Your task to perform on an android device: Open CNN.com Image 0: 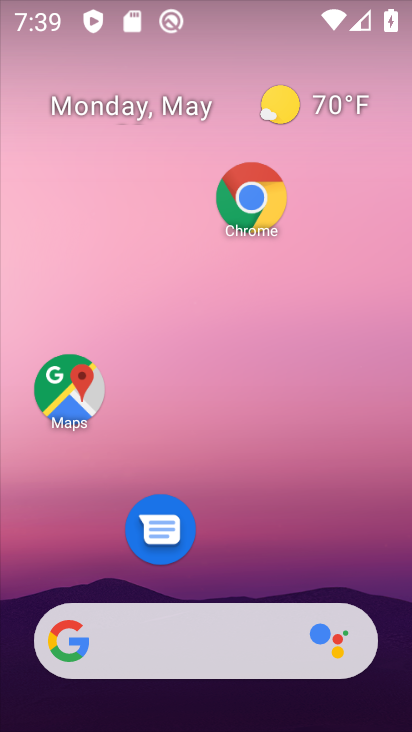
Step 0: press home button
Your task to perform on an android device: Open CNN.com Image 1: 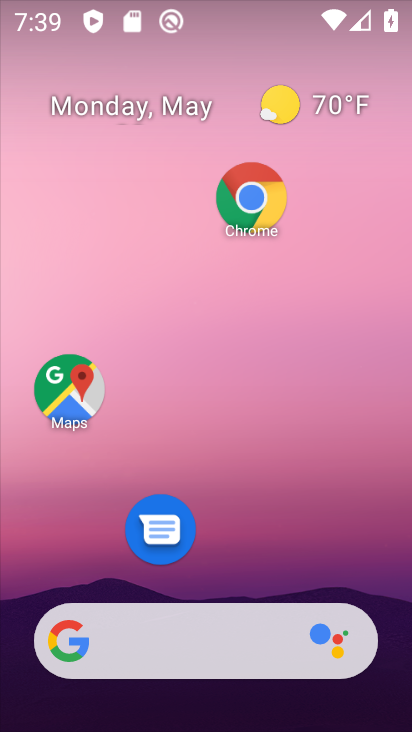
Step 1: click (250, 188)
Your task to perform on an android device: Open CNN.com Image 2: 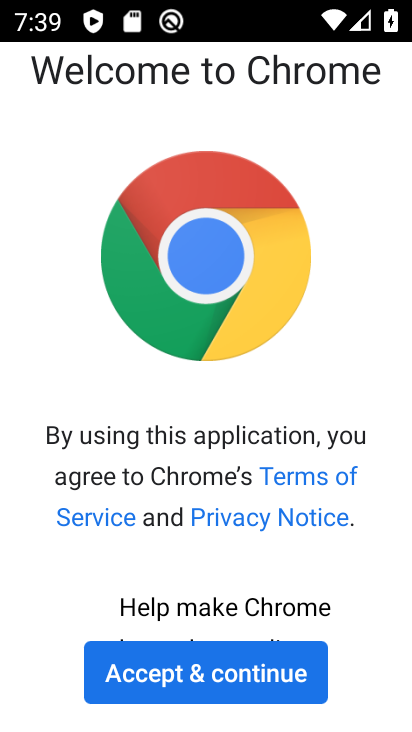
Step 2: click (194, 670)
Your task to perform on an android device: Open CNN.com Image 3: 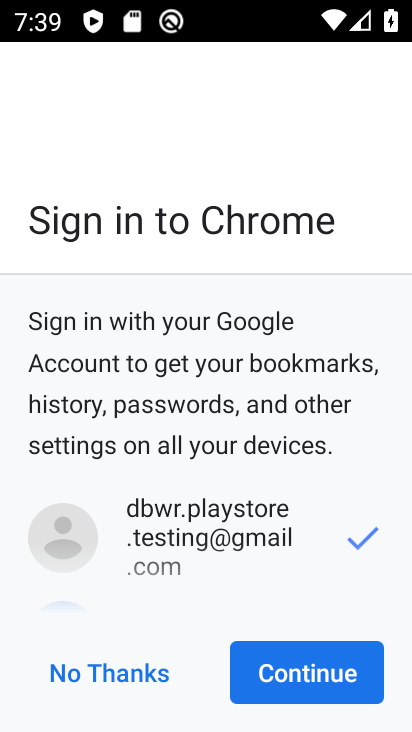
Step 3: click (194, 670)
Your task to perform on an android device: Open CNN.com Image 4: 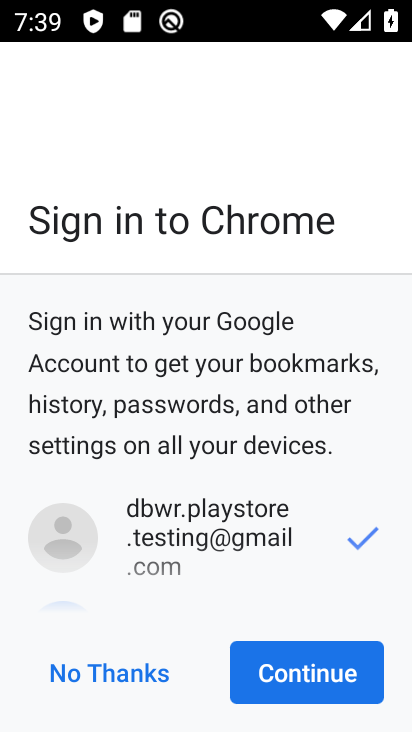
Step 4: click (302, 673)
Your task to perform on an android device: Open CNN.com Image 5: 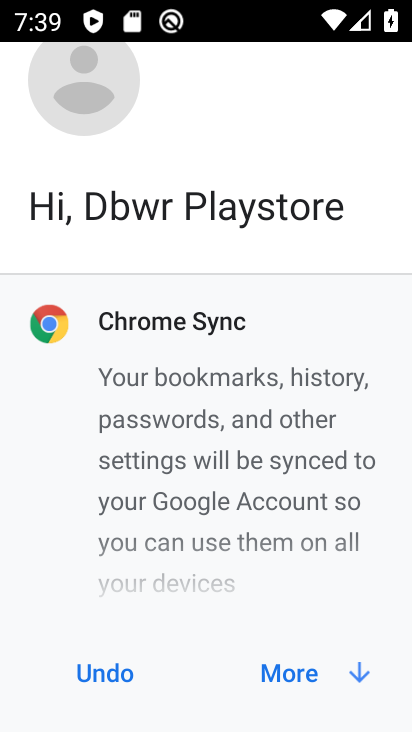
Step 5: click (297, 662)
Your task to perform on an android device: Open CNN.com Image 6: 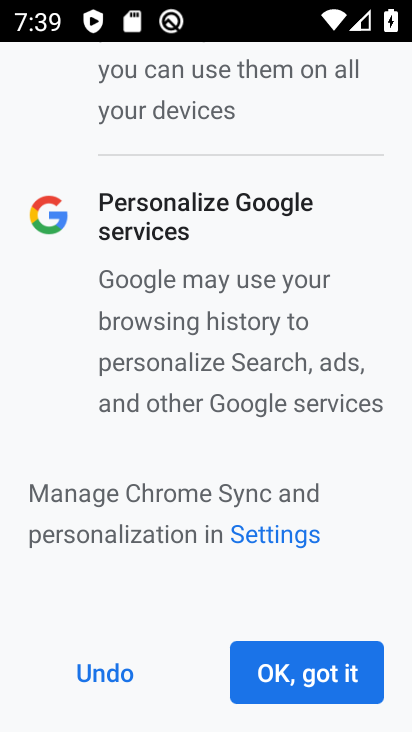
Step 6: click (297, 662)
Your task to perform on an android device: Open CNN.com Image 7: 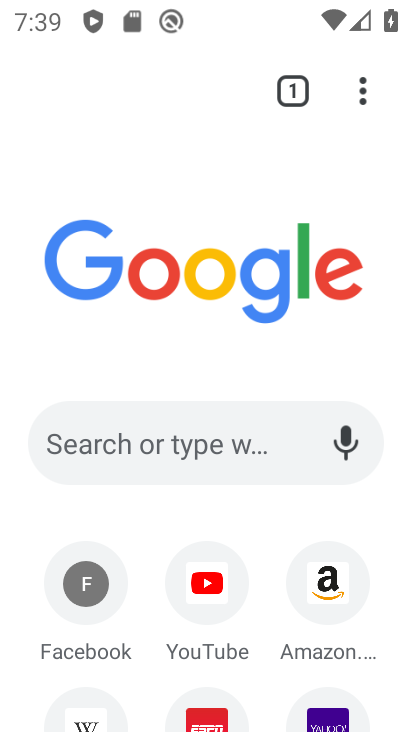
Step 7: click (135, 437)
Your task to perform on an android device: Open CNN.com Image 8: 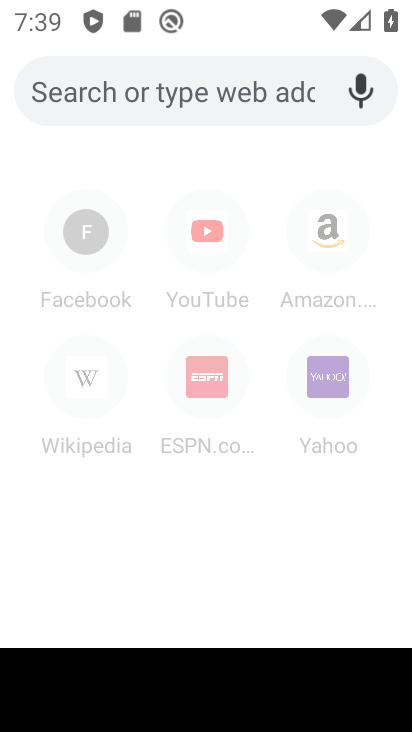
Step 8: type "cnn.com"
Your task to perform on an android device: Open CNN.com Image 9: 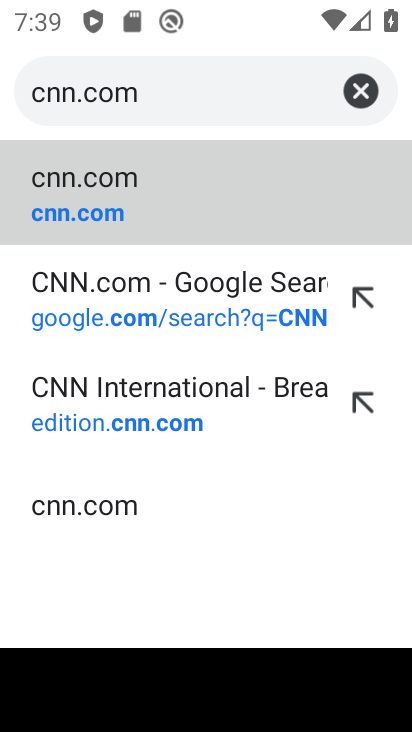
Step 9: click (119, 197)
Your task to perform on an android device: Open CNN.com Image 10: 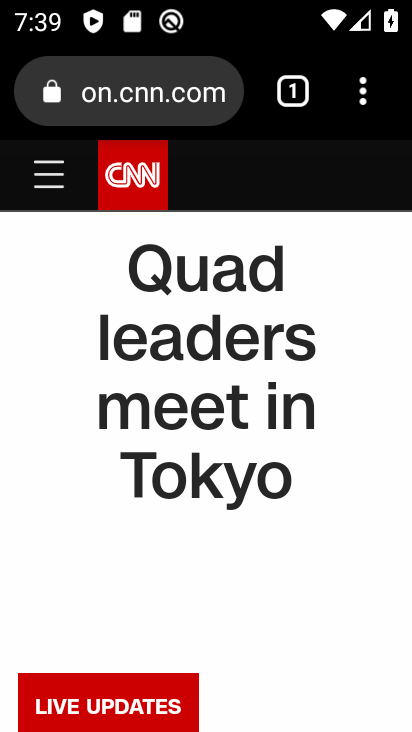
Step 10: drag from (239, 622) to (247, 229)
Your task to perform on an android device: Open CNN.com Image 11: 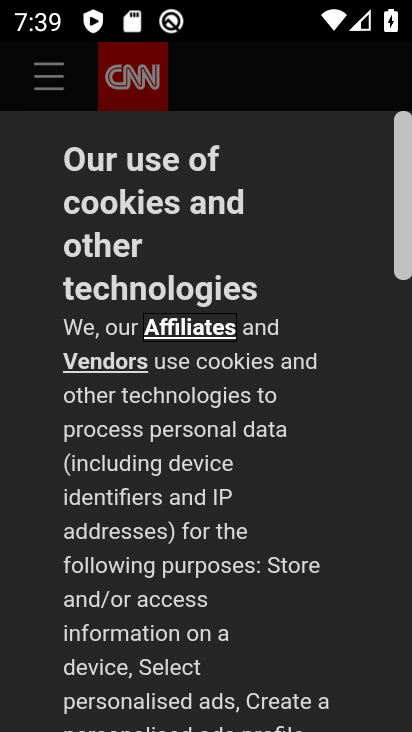
Step 11: drag from (226, 621) to (223, 289)
Your task to perform on an android device: Open CNN.com Image 12: 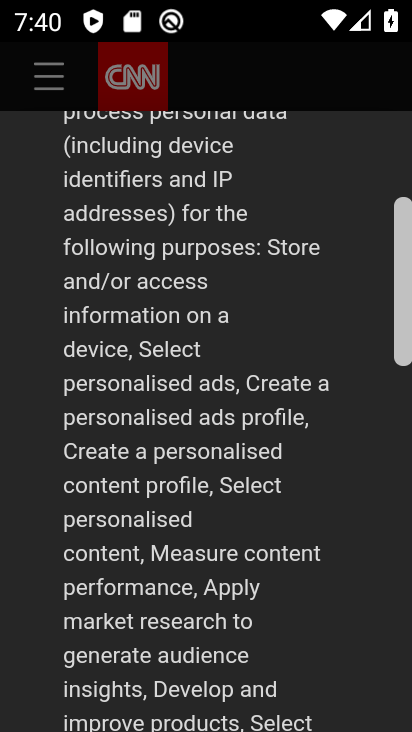
Step 12: drag from (194, 673) to (205, 306)
Your task to perform on an android device: Open CNN.com Image 13: 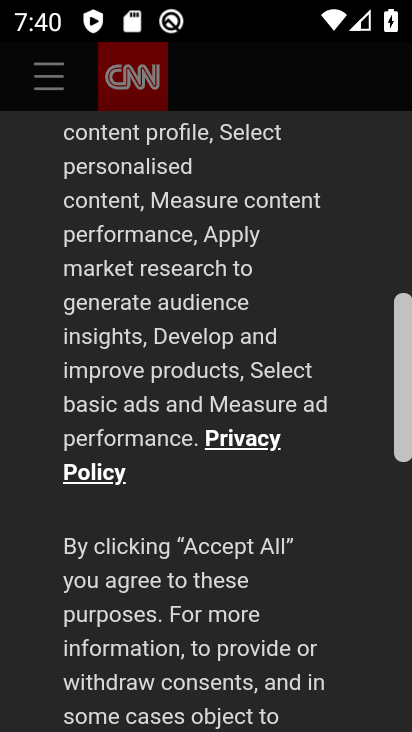
Step 13: drag from (191, 715) to (198, 358)
Your task to perform on an android device: Open CNN.com Image 14: 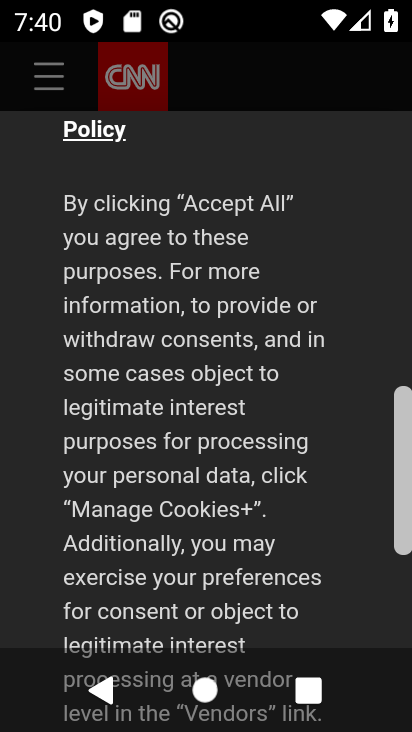
Step 14: drag from (227, 605) to (217, 238)
Your task to perform on an android device: Open CNN.com Image 15: 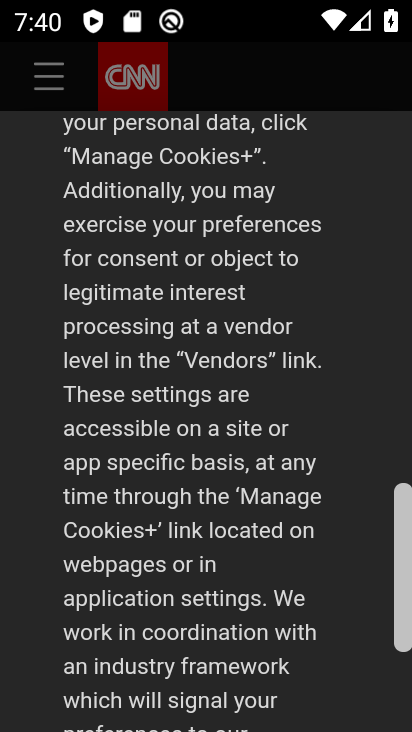
Step 15: drag from (218, 628) to (215, 286)
Your task to perform on an android device: Open CNN.com Image 16: 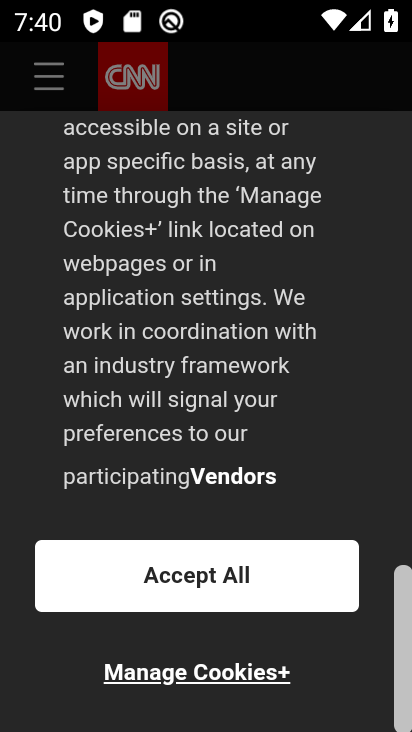
Step 16: click (198, 582)
Your task to perform on an android device: Open CNN.com Image 17: 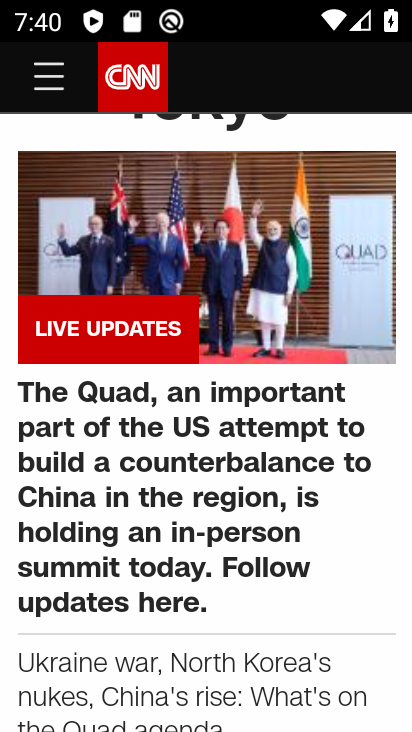
Step 17: task complete